Your task to perform on an android device: turn on data saver in the chrome app Image 0: 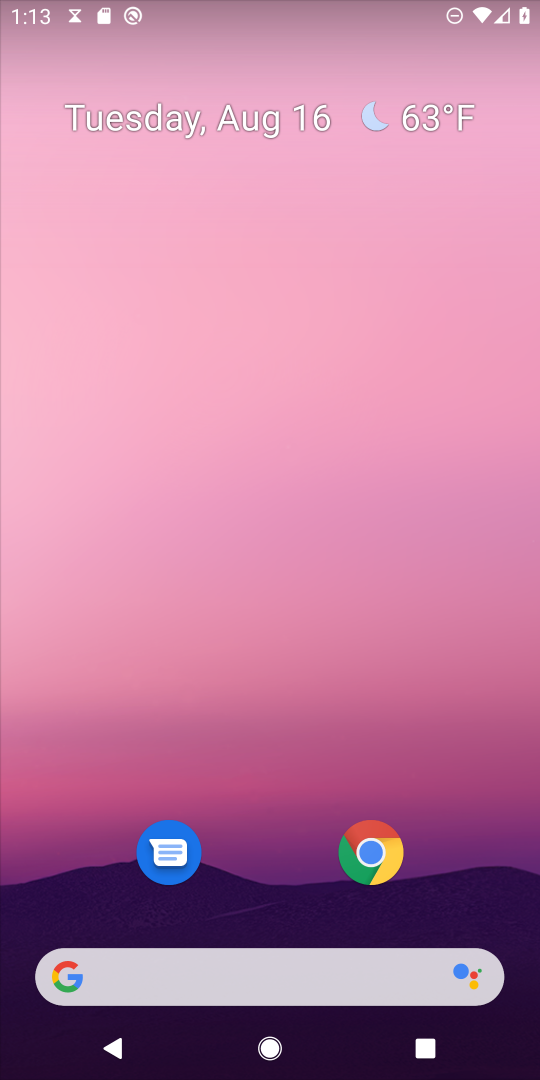
Step 0: click (344, 865)
Your task to perform on an android device: turn on data saver in the chrome app Image 1: 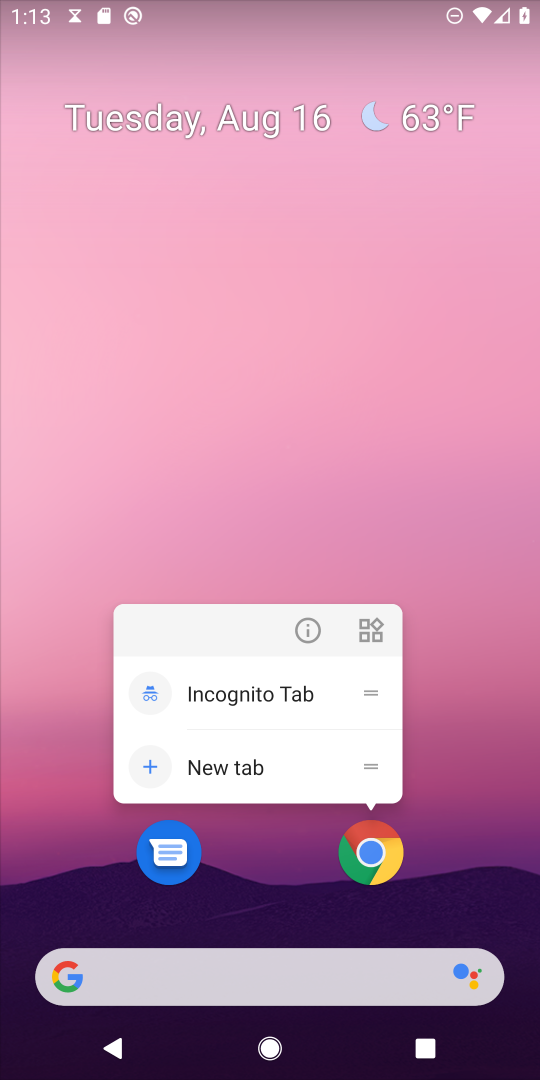
Step 1: click (362, 860)
Your task to perform on an android device: turn on data saver in the chrome app Image 2: 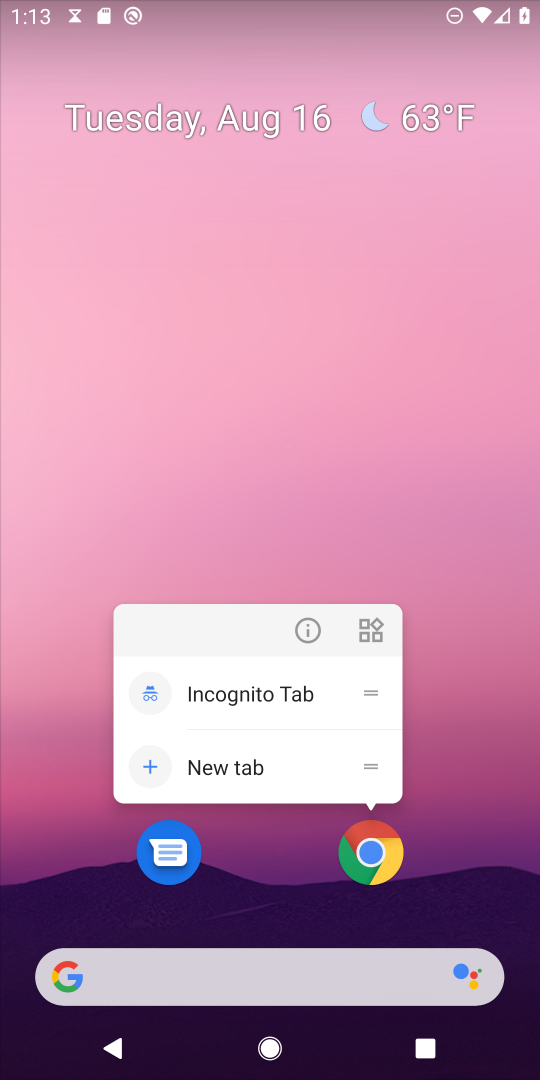
Step 2: click (373, 848)
Your task to perform on an android device: turn on data saver in the chrome app Image 3: 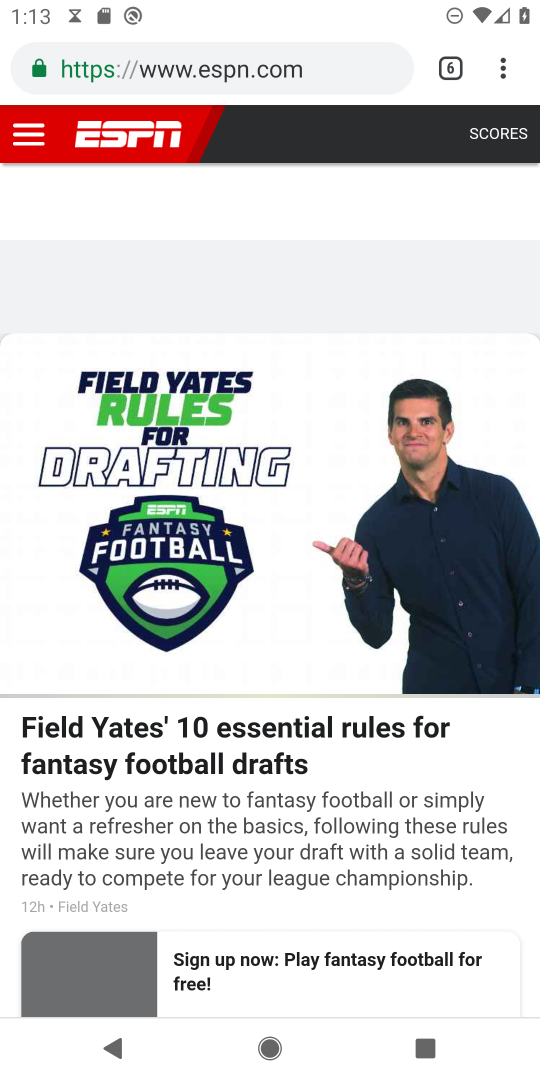
Step 3: drag from (502, 66) to (290, 903)
Your task to perform on an android device: turn on data saver in the chrome app Image 4: 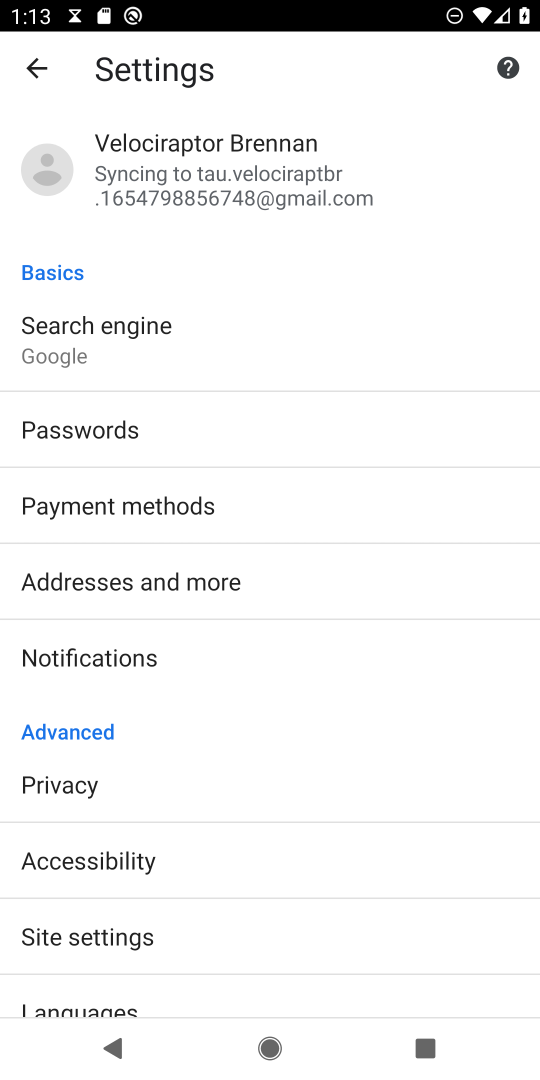
Step 4: drag from (116, 980) to (301, 341)
Your task to perform on an android device: turn on data saver in the chrome app Image 5: 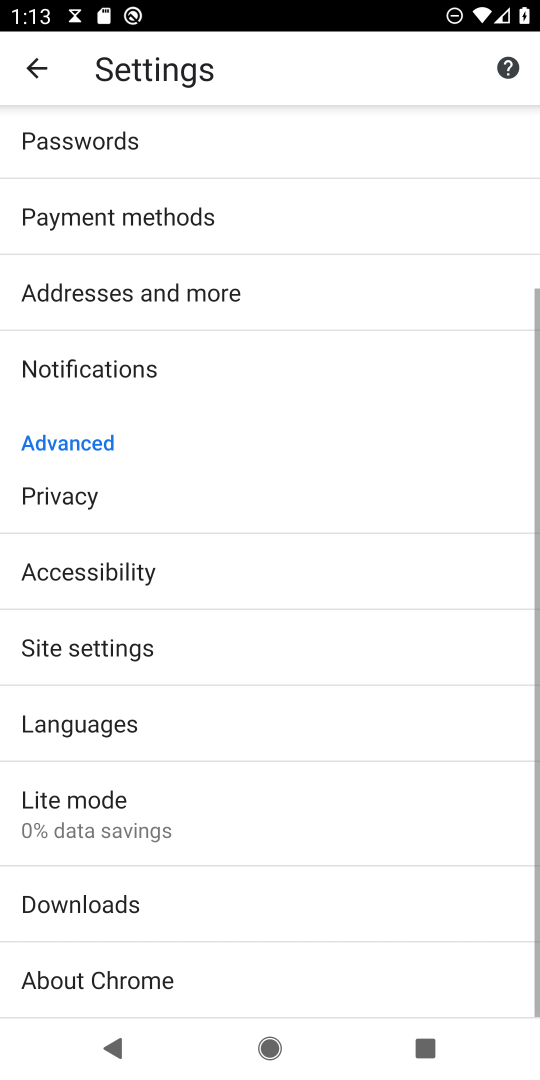
Step 5: click (96, 822)
Your task to perform on an android device: turn on data saver in the chrome app Image 6: 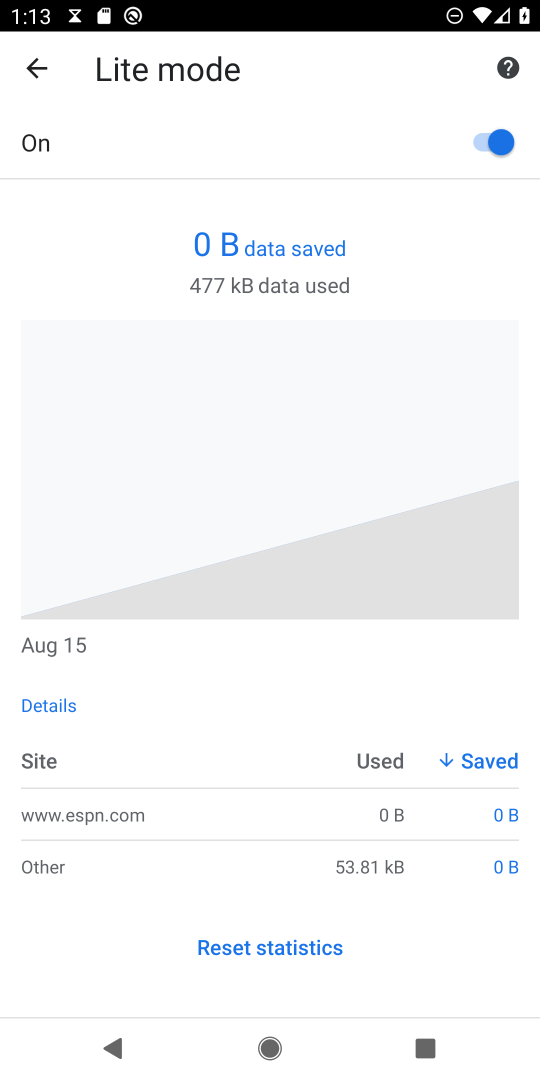
Step 6: task complete